Your task to perform on an android device: remove spam from my inbox in the gmail app Image 0: 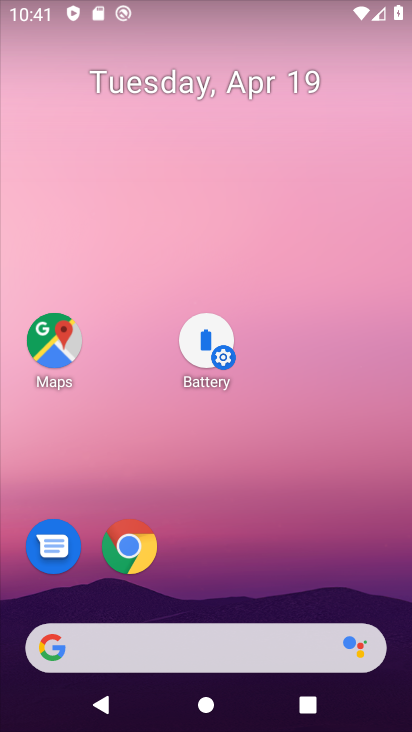
Step 0: drag from (219, 547) to (250, 81)
Your task to perform on an android device: remove spam from my inbox in the gmail app Image 1: 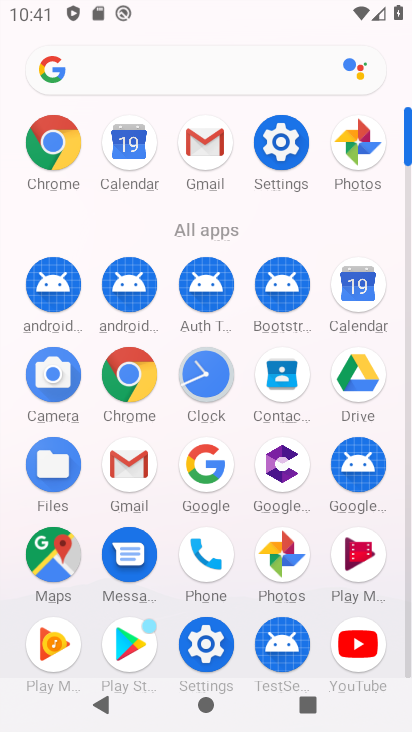
Step 1: click (208, 140)
Your task to perform on an android device: remove spam from my inbox in the gmail app Image 2: 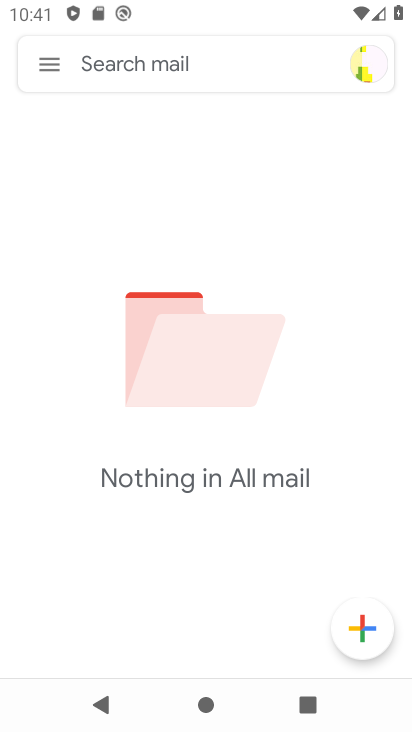
Step 2: click (48, 66)
Your task to perform on an android device: remove spam from my inbox in the gmail app Image 3: 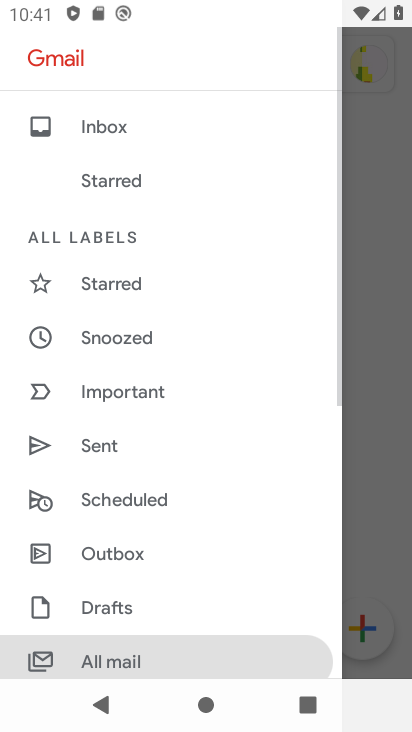
Step 3: drag from (133, 545) to (240, 34)
Your task to perform on an android device: remove spam from my inbox in the gmail app Image 4: 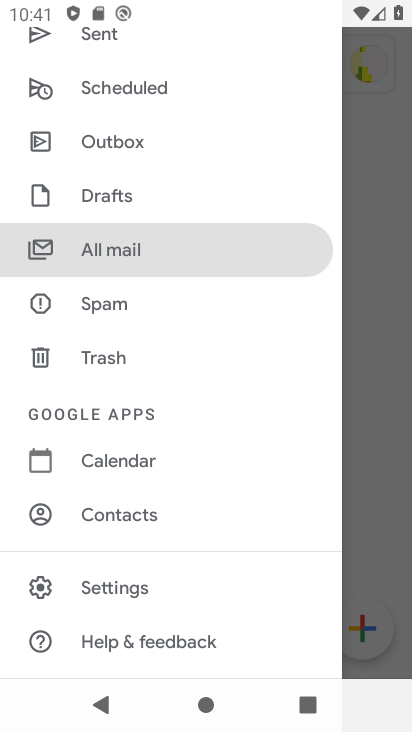
Step 4: click (137, 301)
Your task to perform on an android device: remove spam from my inbox in the gmail app Image 5: 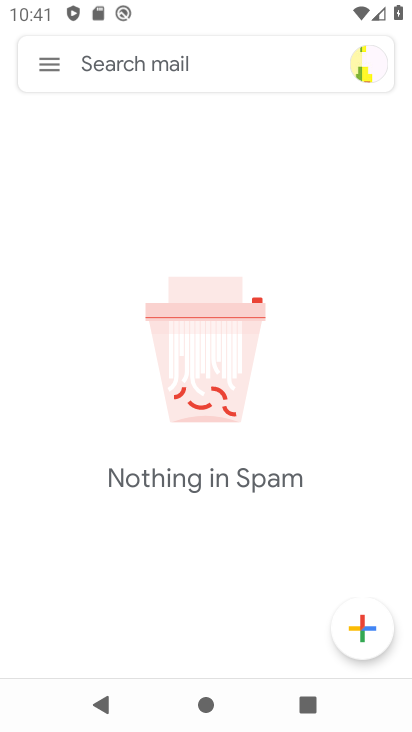
Step 5: task complete